Your task to perform on an android device: make emails show in primary in the gmail app Image 0: 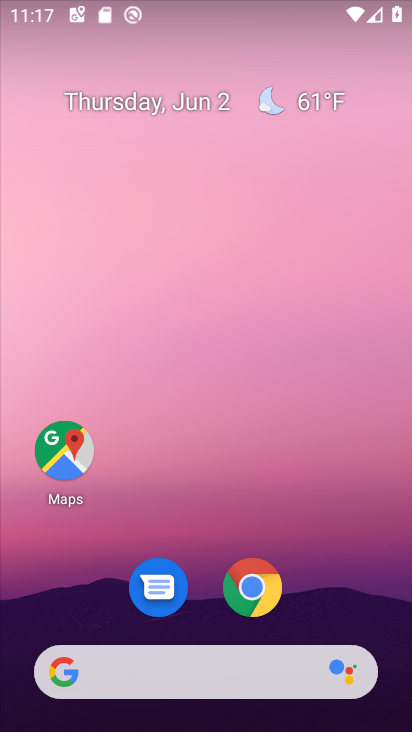
Step 0: drag from (342, 470) to (351, 22)
Your task to perform on an android device: make emails show in primary in the gmail app Image 1: 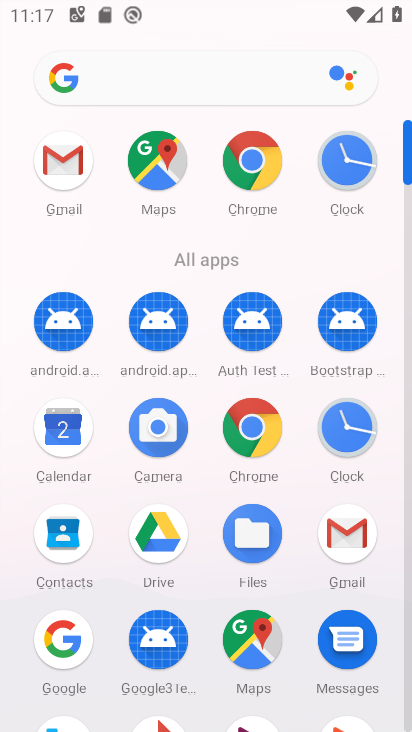
Step 1: click (77, 174)
Your task to perform on an android device: make emails show in primary in the gmail app Image 2: 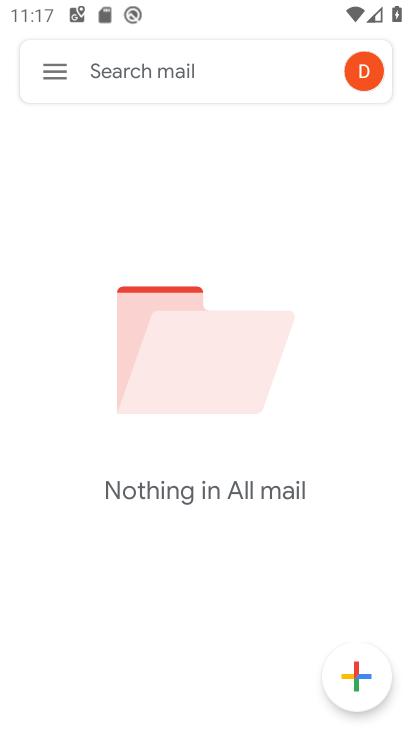
Step 2: click (56, 66)
Your task to perform on an android device: make emails show in primary in the gmail app Image 3: 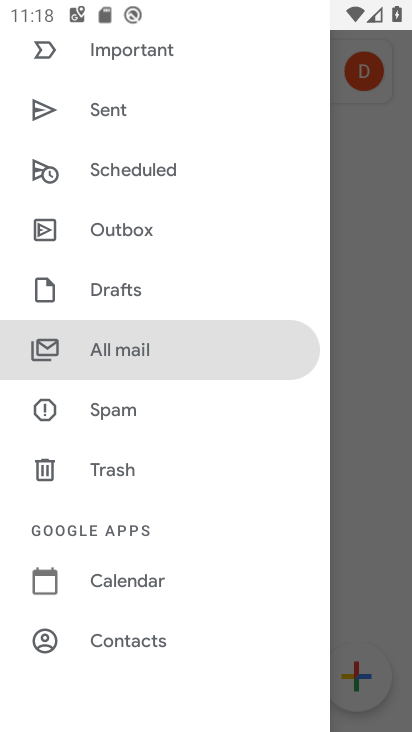
Step 3: drag from (200, 447) to (219, 109)
Your task to perform on an android device: make emails show in primary in the gmail app Image 4: 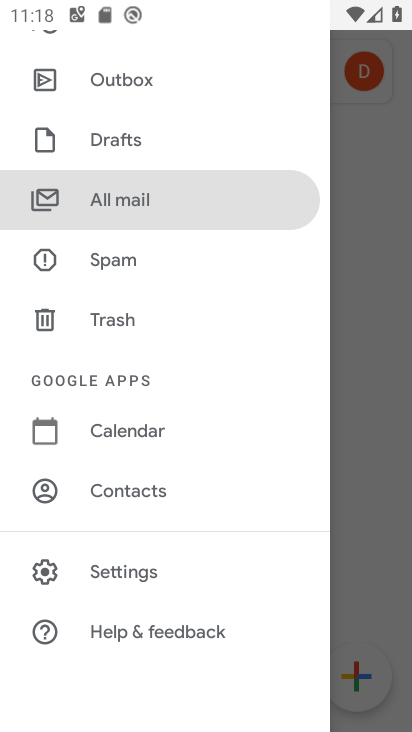
Step 4: click (172, 557)
Your task to perform on an android device: make emails show in primary in the gmail app Image 5: 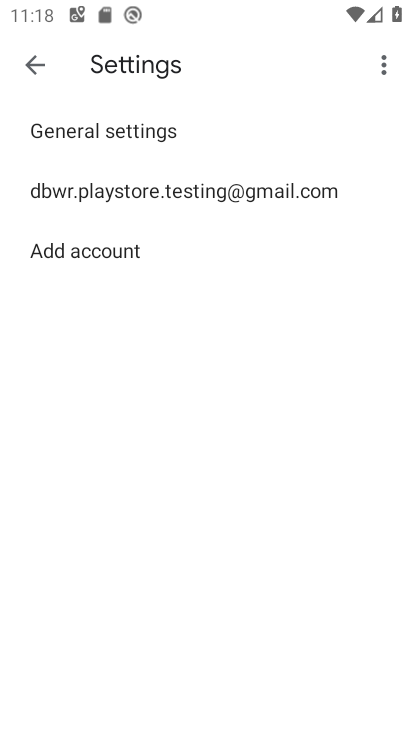
Step 5: click (260, 188)
Your task to perform on an android device: make emails show in primary in the gmail app Image 6: 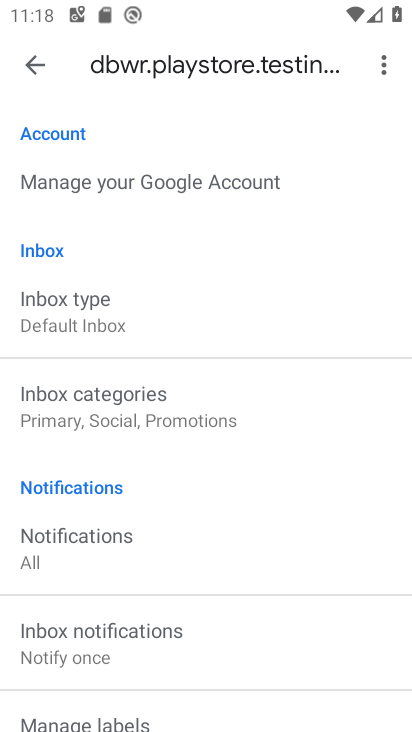
Step 6: click (93, 395)
Your task to perform on an android device: make emails show in primary in the gmail app Image 7: 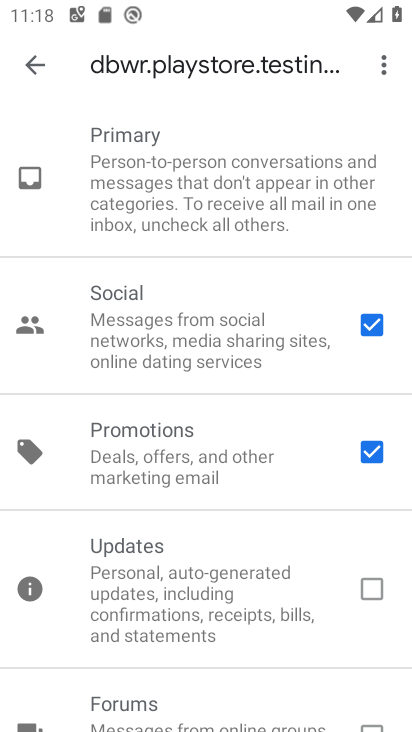
Step 7: click (381, 454)
Your task to perform on an android device: make emails show in primary in the gmail app Image 8: 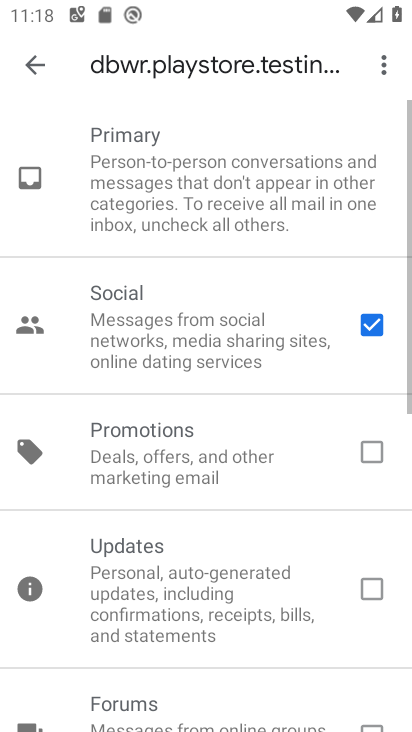
Step 8: click (376, 321)
Your task to perform on an android device: make emails show in primary in the gmail app Image 9: 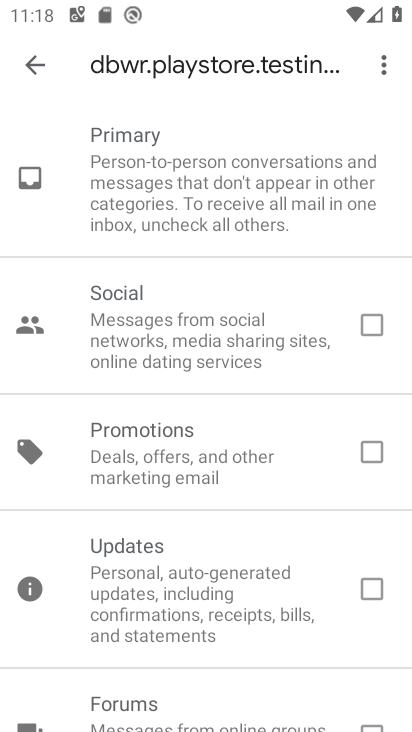
Step 9: task complete